Your task to perform on an android device: What's the weather today? Image 0: 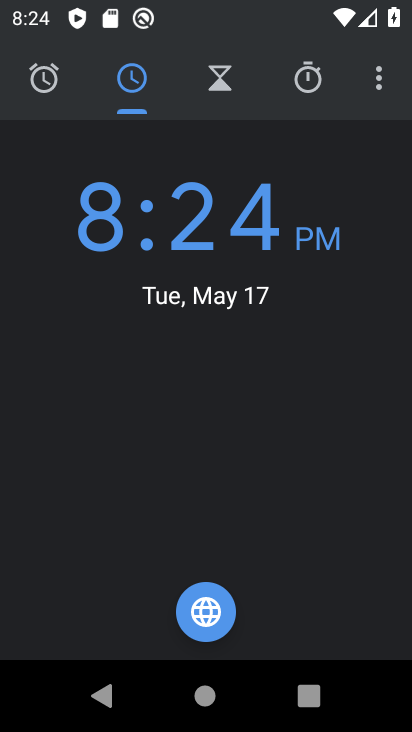
Step 0: press home button
Your task to perform on an android device: What's the weather today? Image 1: 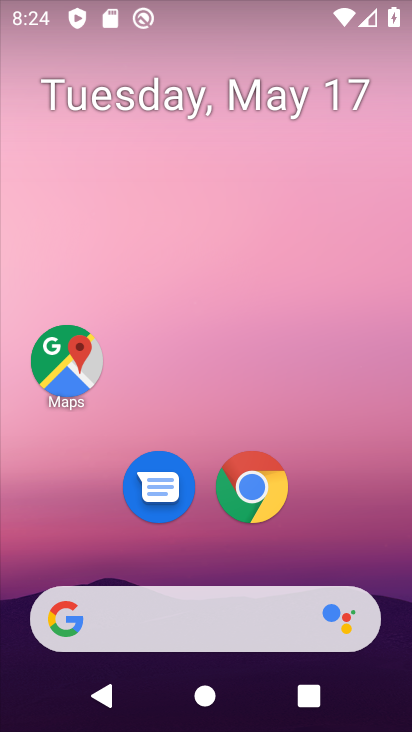
Step 1: click (228, 624)
Your task to perform on an android device: What's the weather today? Image 2: 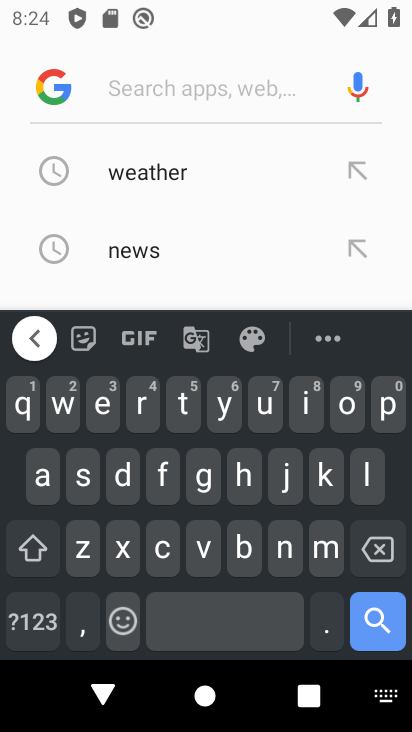
Step 2: click (172, 165)
Your task to perform on an android device: What's the weather today? Image 3: 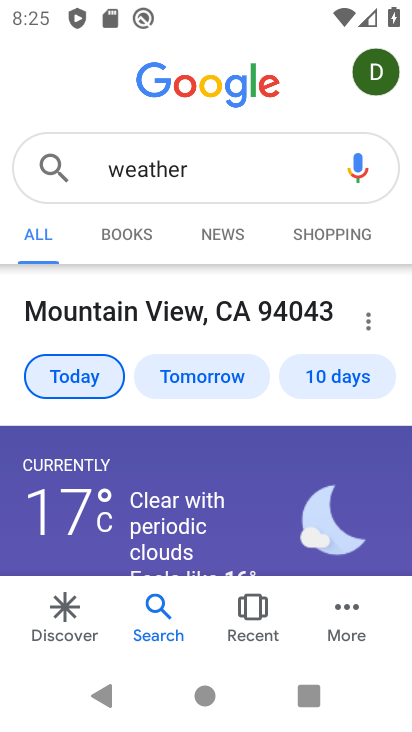
Step 3: task complete